Your task to perform on an android device: check android version Image 0: 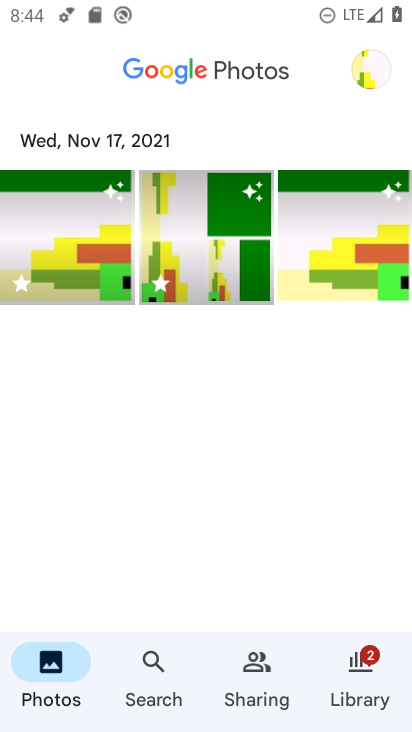
Step 0: press home button
Your task to perform on an android device: check android version Image 1: 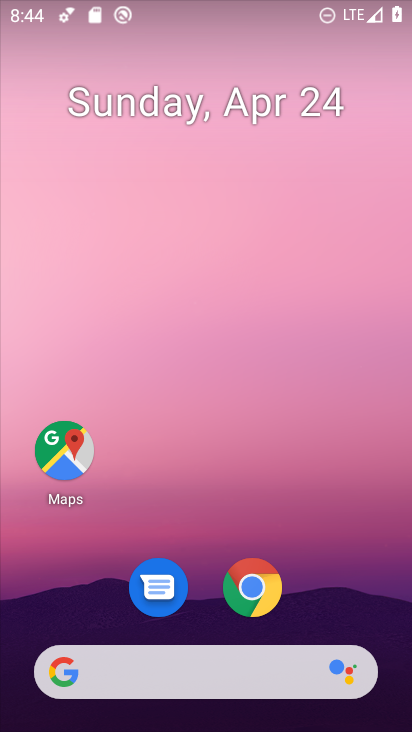
Step 1: drag from (368, 591) to (338, 120)
Your task to perform on an android device: check android version Image 2: 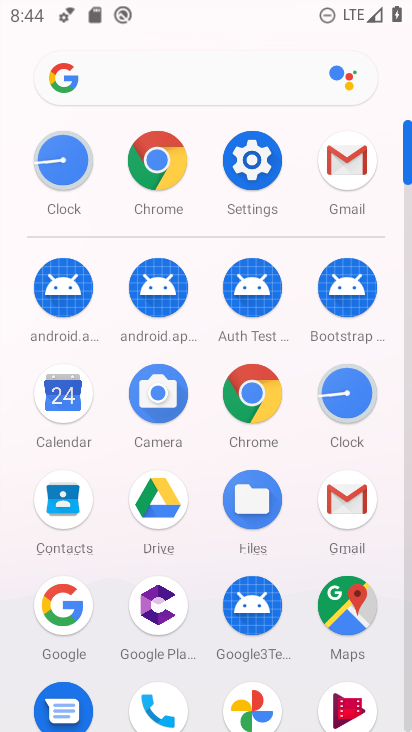
Step 2: click (256, 169)
Your task to perform on an android device: check android version Image 3: 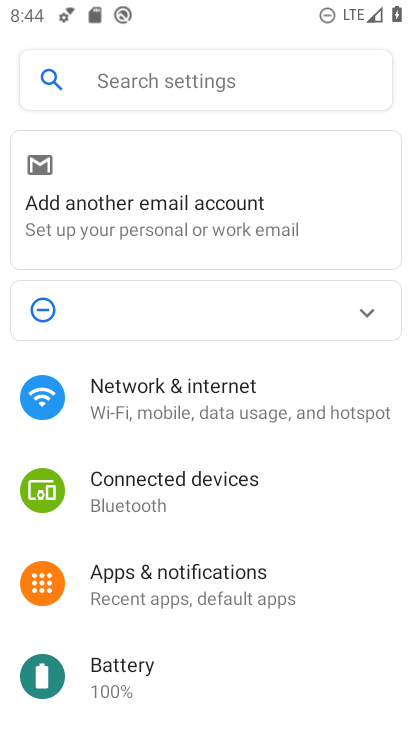
Step 3: drag from (332, 648) to (364, 290)
Your task to perform on an android device: check android version Image 4: 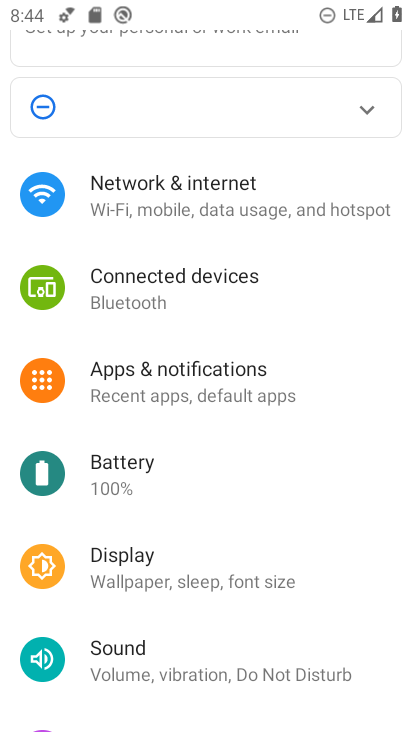
Step 4: drag from (345, 578) to (342, 249)
Your task to perform on an android device: check android version Image 5: 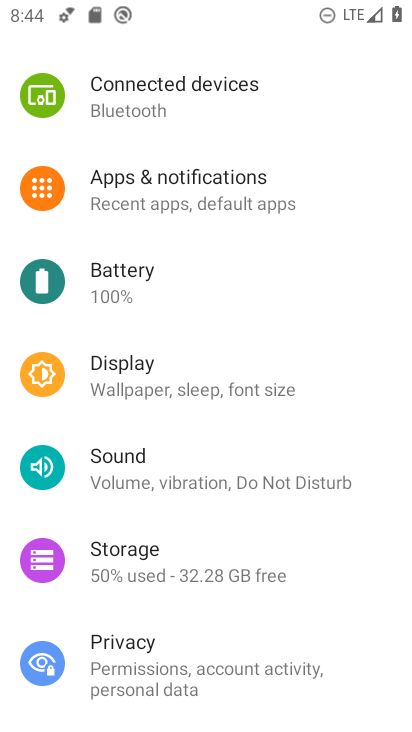
Step 5: drag from (347, 572) to (360, 203)
Your task to perform on an android device: check android version Image 6: 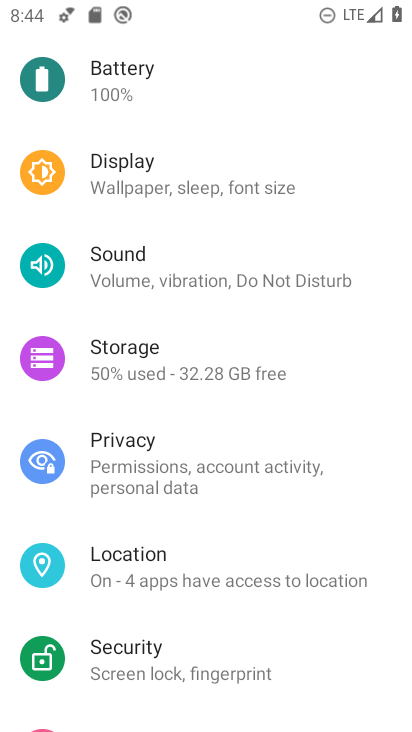
Step 6: drag from (355, 625) to (354, 210)
Your task to perform on an android device: check android version Image 7: 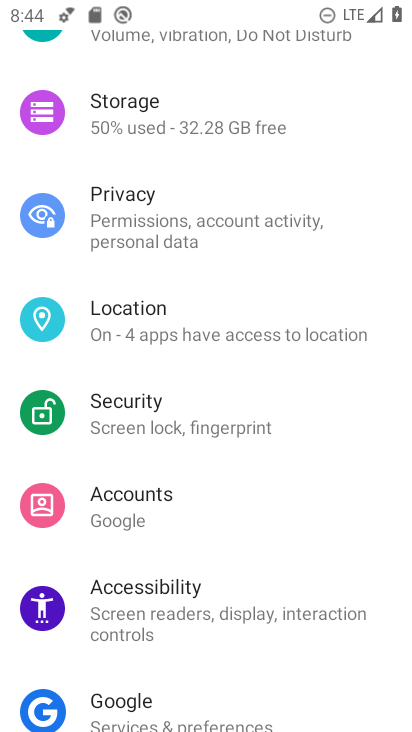
Step 7: drag from (332, 640) to (360, 281)
Your task to perform on an android device: check android version Image 8: 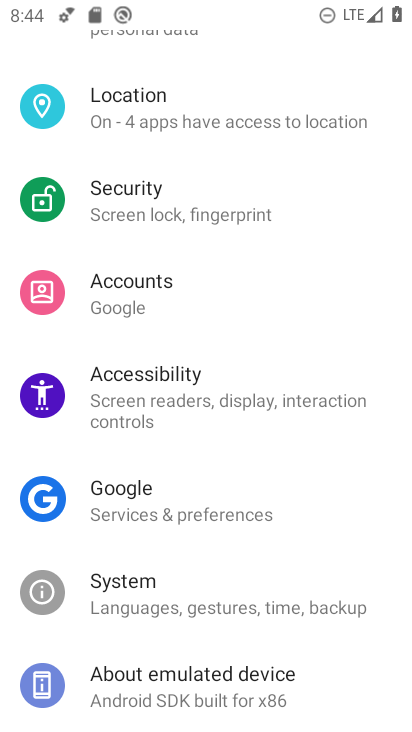
Step 8: click (221, 653)
Your task to perform on an android device: check android version Image 9: 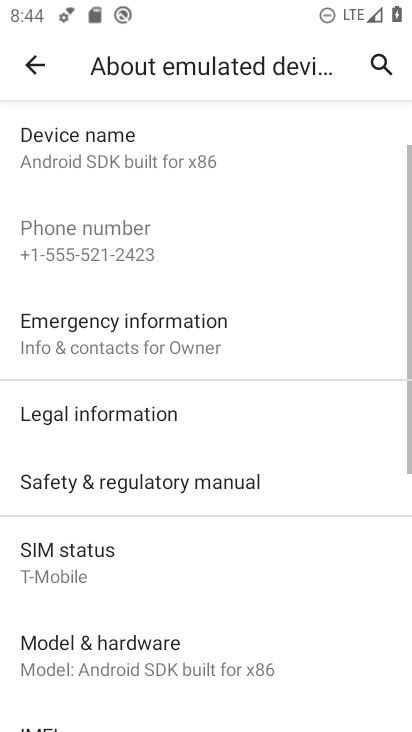
Step 9: drag from (292, 603) to (332, 258)
Your task to perform on an android device: check android version Image 10: 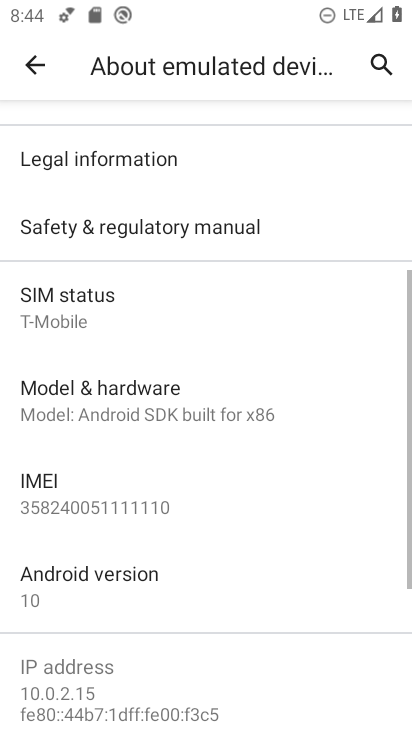
Step 10: click (107, 580)
Your task to perform on an android device: check android version Image 11: 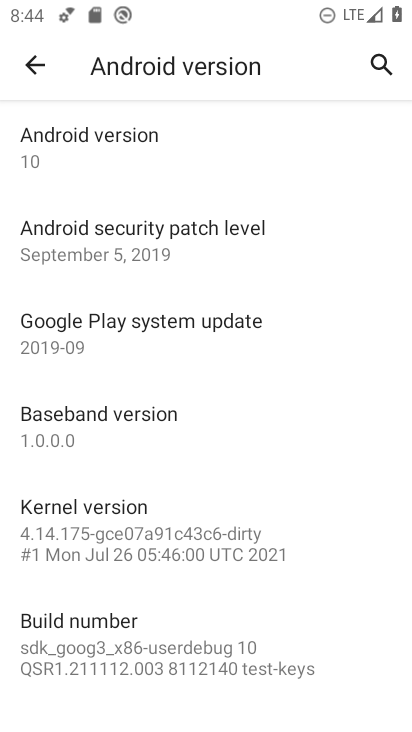
Step 11: task complete